Your task to perform on an android device: How much does a 3 bedroom apartment rent for in Boston? Image 0: 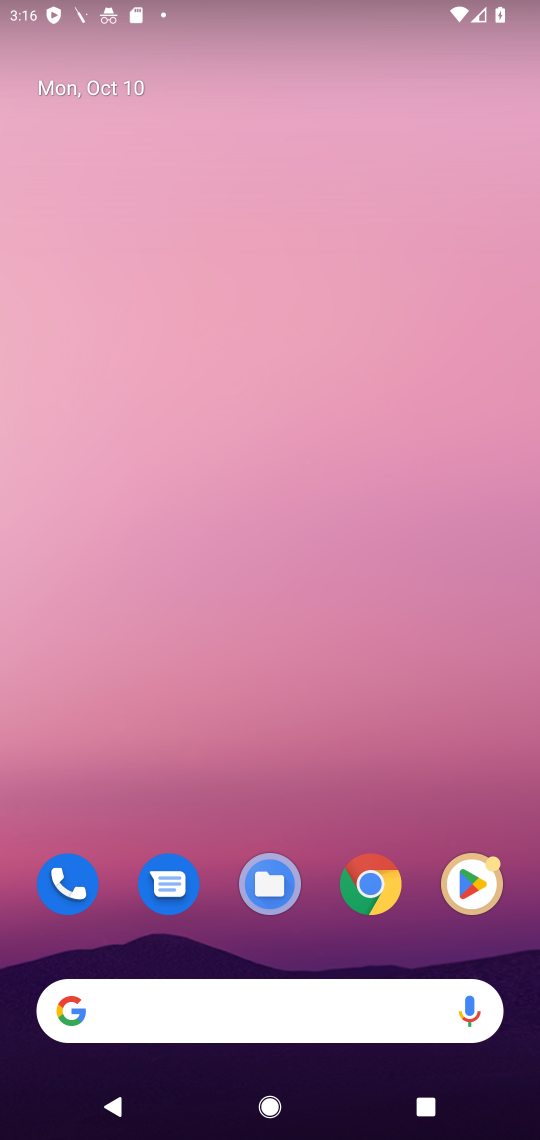
Step 0: click (253, 1012)
Your task to perform on an android device: How much does a 3 bedroom apartment rent for in Boston? Image 1: 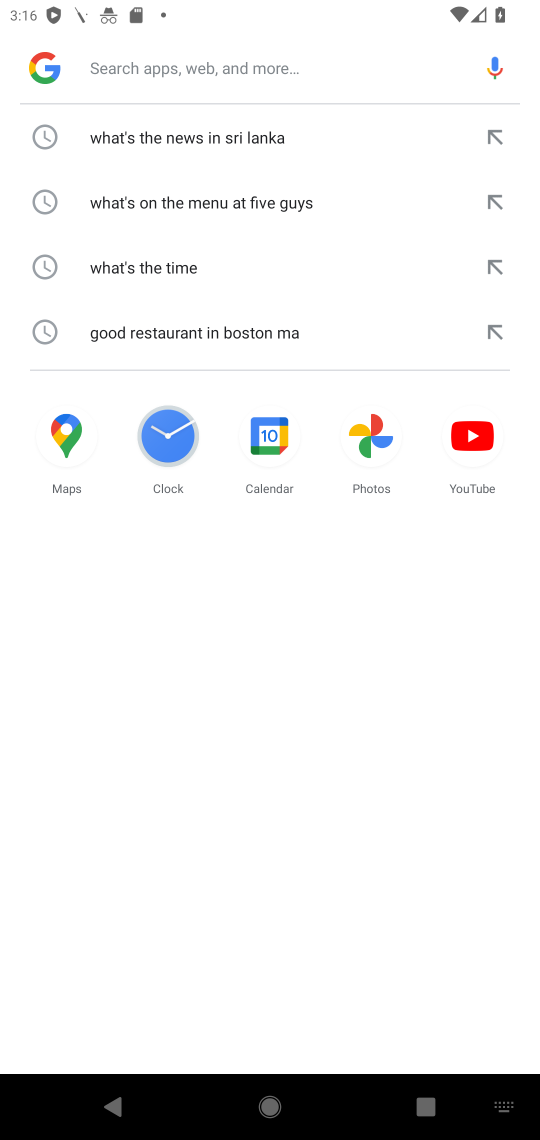
Step 1: type "How much does a 3 bedroom apartment rent for in Boston"
Your task to perform on an android device: How much does a 3 bedroom apartment rent for in Boston? Image 2: 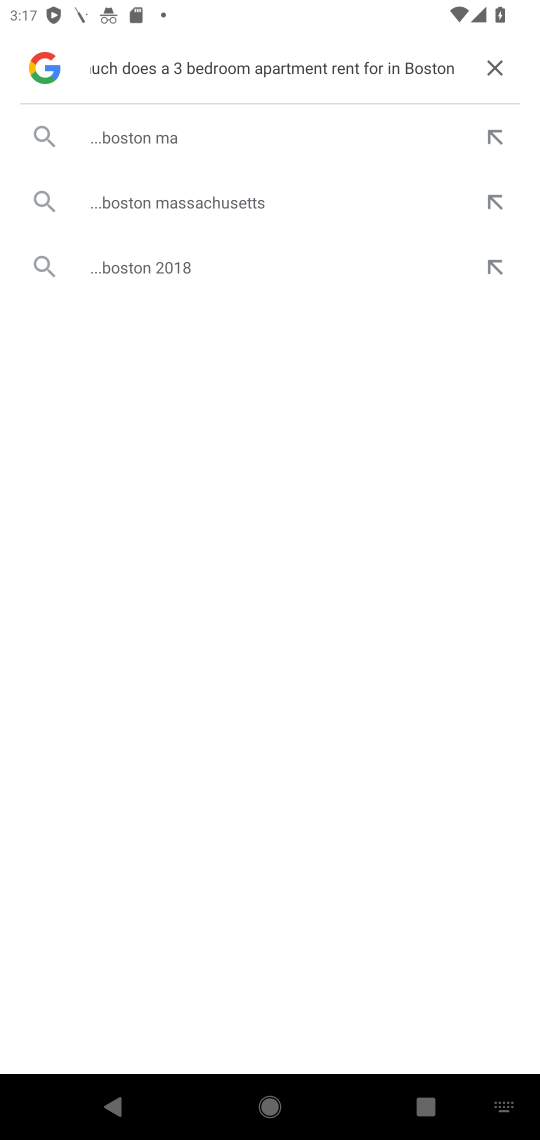
Step 2: click (135, 142)
Your task to perform on an android device: How much does a 3 bedroom apartment rent for in Boston? Image 3: 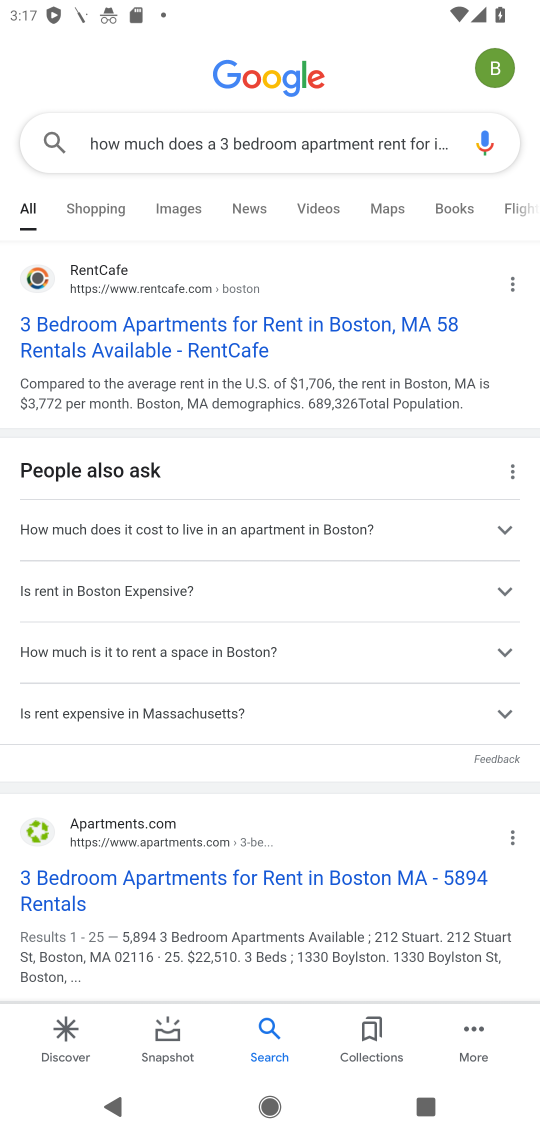
Step 3: click (196, 325)
Your task to perform on an android device: How much does a 3 bedroom apartment rent for in Boston? Image 4: 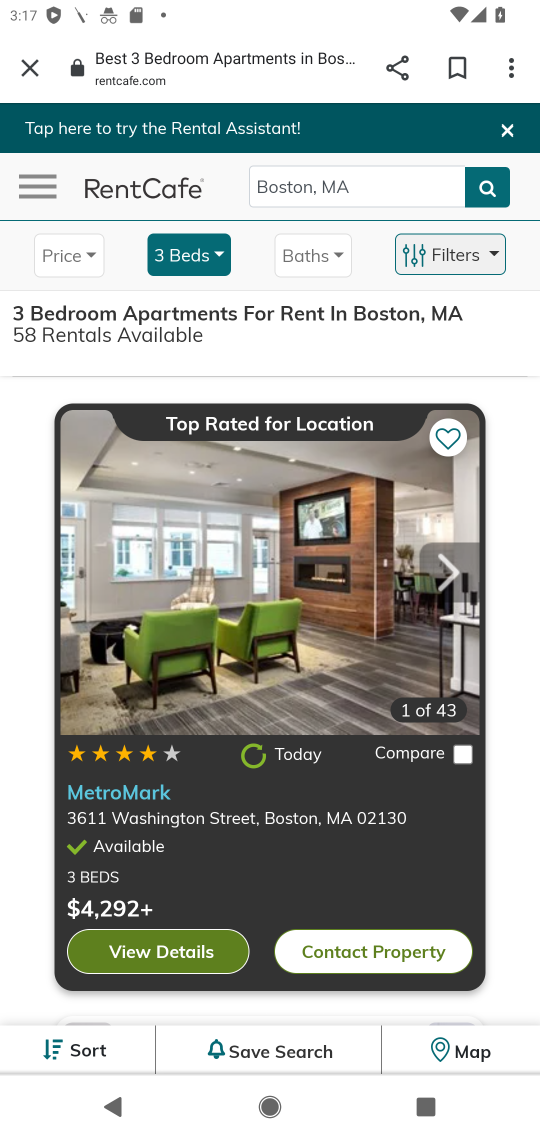
Step 4: task complete